Your task to perform on an android device: Go to sound settings Image 0: 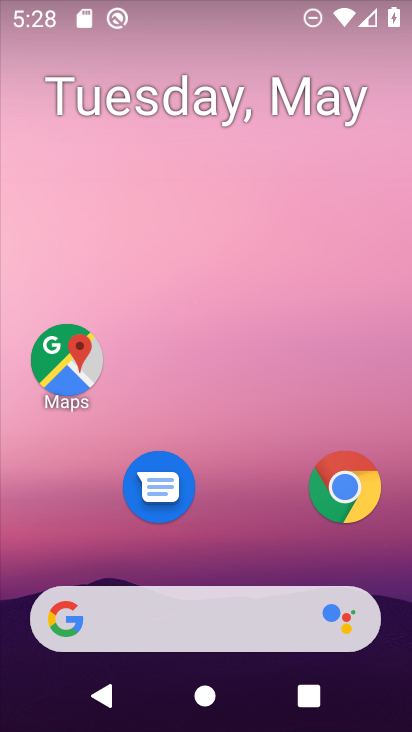
Step 0: drag from (253, 539) to (195, 34)
Your task to perform on an android device: Go to sound settings Image 1: 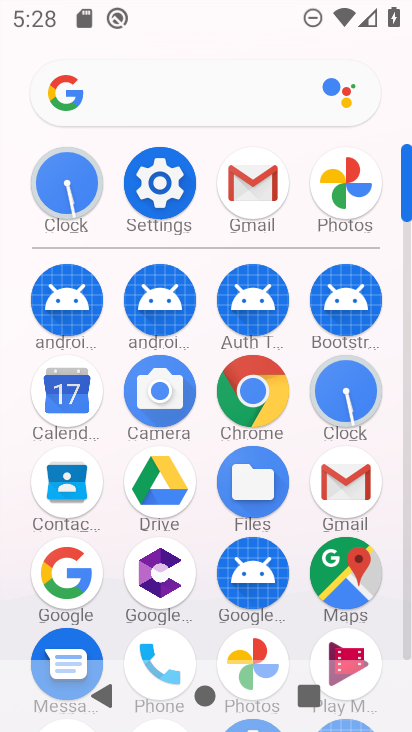
Step 1: click (178, 174)
Your task to perform on an android device: Go to sound settings Image 2: 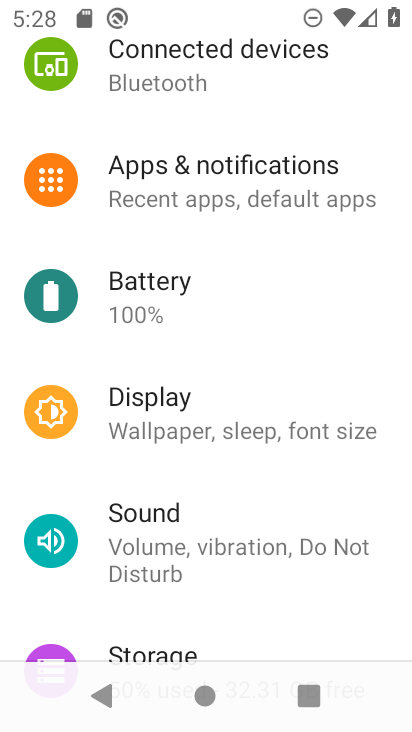
Step 2: click (205, 516)
Your task to perform on an android device: Go to sound settings Image 3: 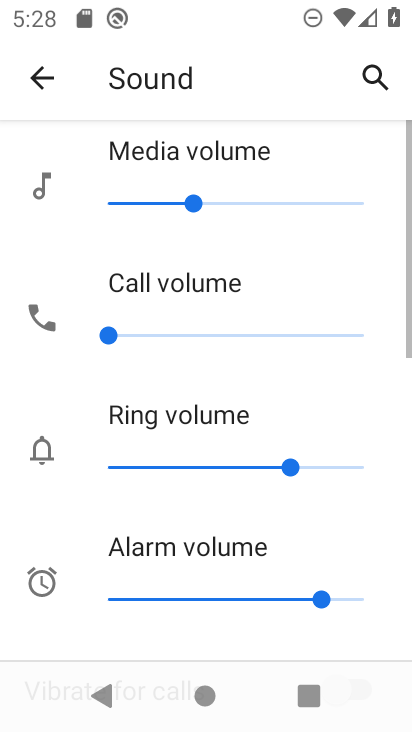
Step 3: task complete